Your task to perform on an android device: turn on improve location accuracy Image 0: 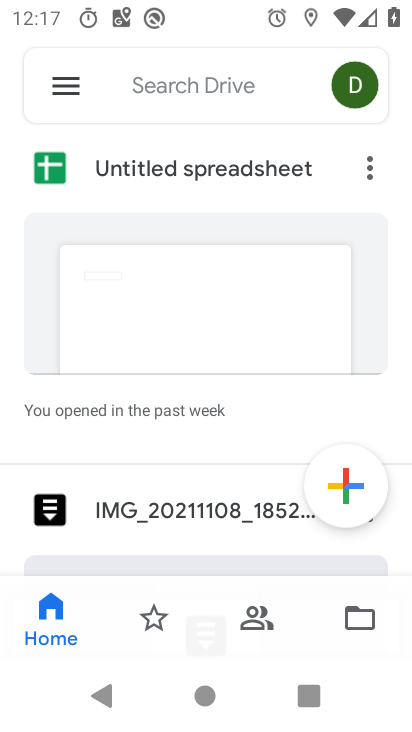
Step 0: press home button
Your task to perform on an android device: turn on improve location accuracy Image 1: 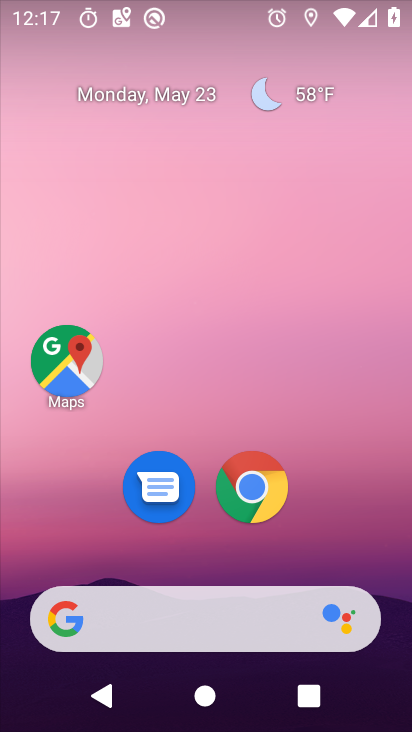
Step 1: drag from (341, 539) to (343, 166)
Your task to perform on an android device: turn on improve location accuracy Image 2: 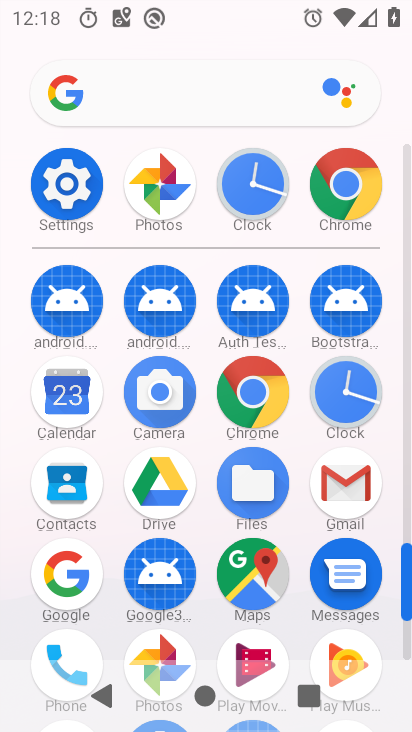
Step 2: click (56, 182)
Your task to perform on an android device: turn on improve location accuracy Image 3: 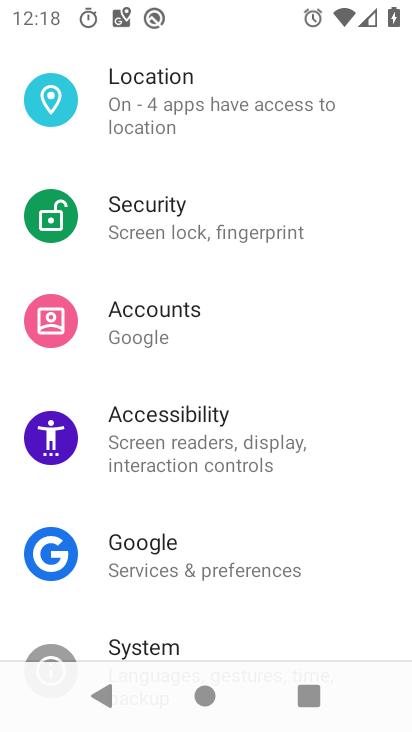
Step 3: drag from (314, 534) to (288, 294)
Your task to perform on an android device: turn on improve location accuracy Image 4: 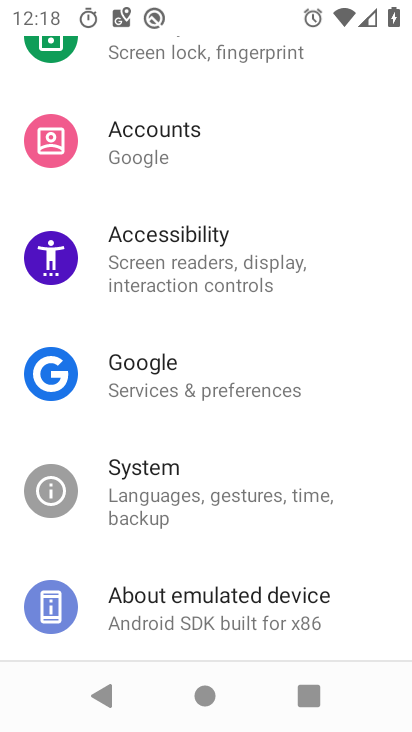
Step 4: drag from (302, 236) to (279, 594)
Your task to perform on an android device: turn on improve location accuracy Image 5: 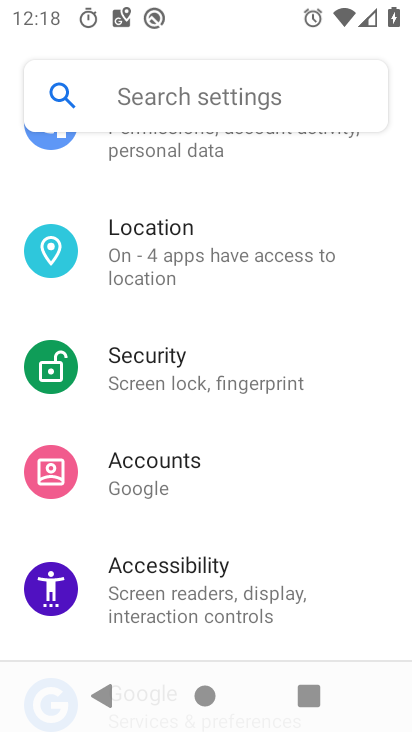
Step 5: click (219, 258)
Your task to perform on an android device: turn on improve location accuracy Image 6: 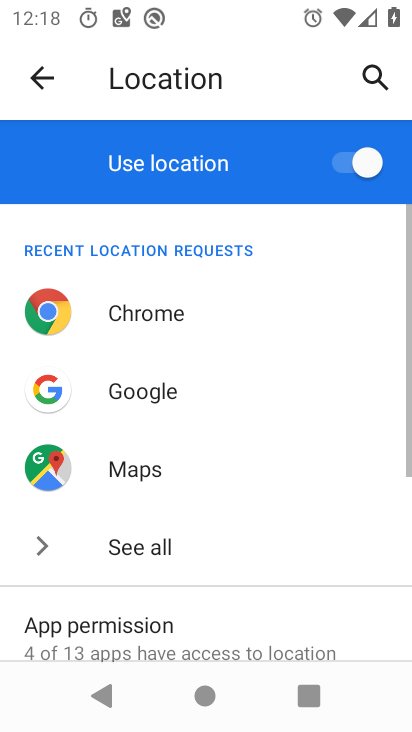
Step 6: drag from (217, 637) to (268, 316)
Your task to perform on an android device: turn on improve location accuracy Image 7: 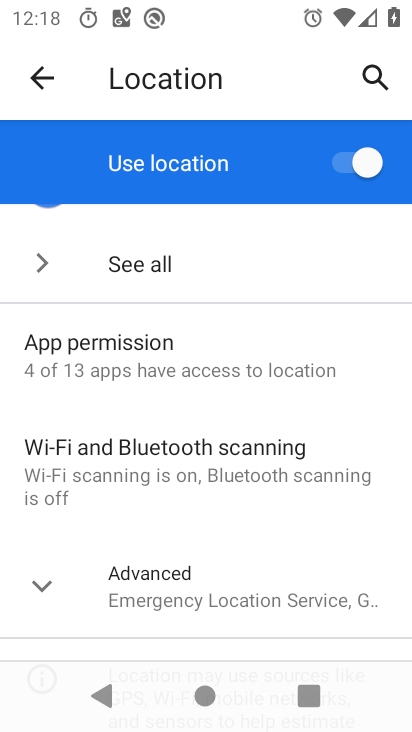
Step 7: drag from (258, 435) to (286, 290)
Your task to perform on an android device: turn on improve location accuracy Image 8: 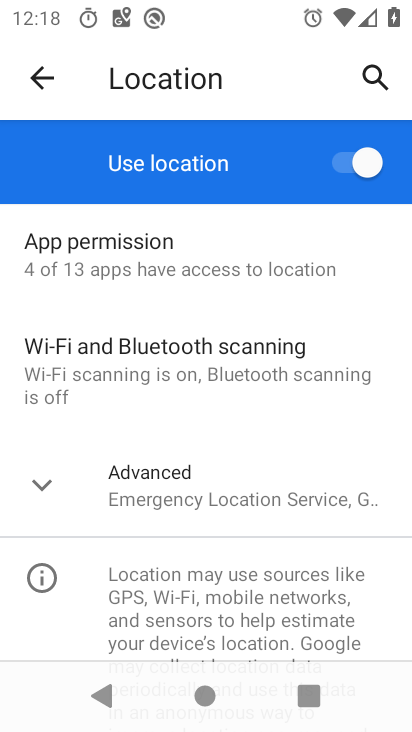
Step 8: click (252, 514)
Your task to perform on an android device: turn on improve location accuracy Image 9: 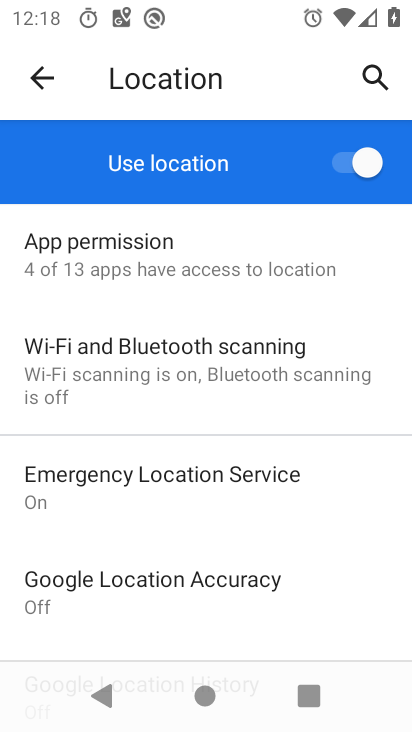
Step 9: click (189, 580)
Your task to perform on an android device: turn on improve location accuracy Image 10: 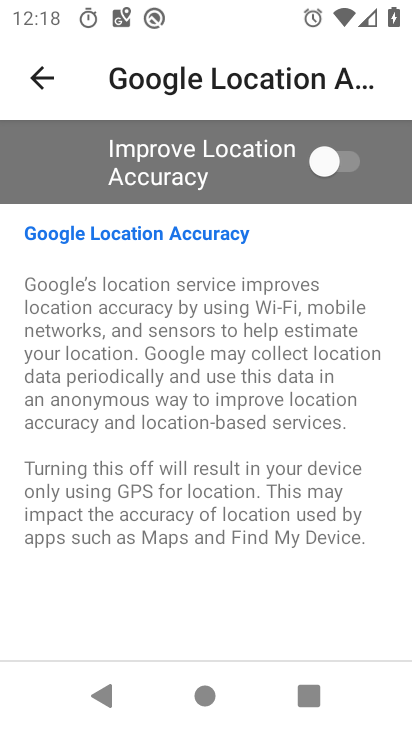
Step 10: click (360, 168)
Your task to perform on an android device: turn on improve location accuracy Image 11: 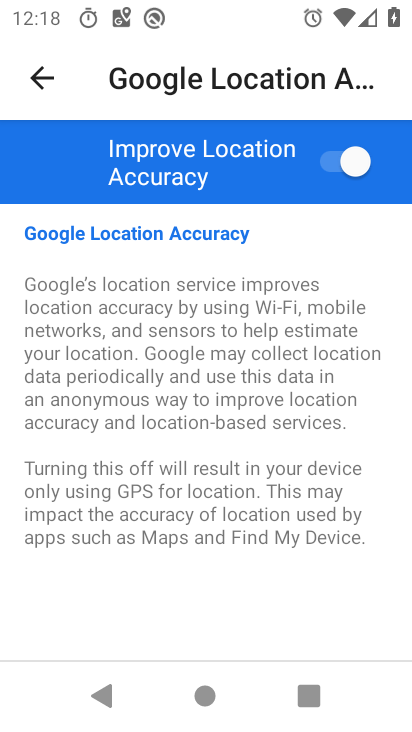
Step 11: task complete